Your task to perform on an android device: Open Yahoo.com Image 0: 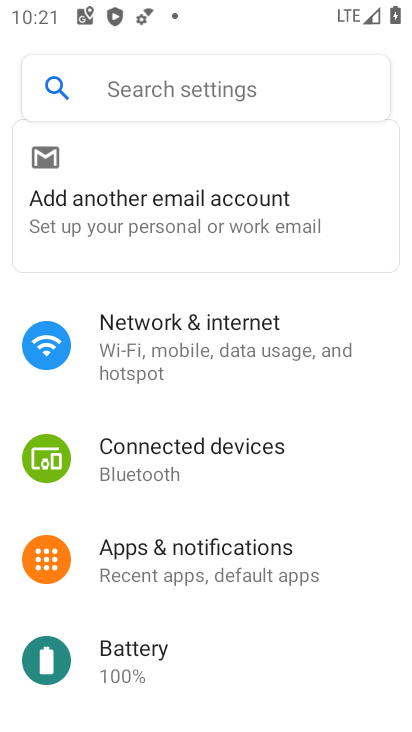
Step 0: press home button
Your task to perform on an android device: Open Yahoo.com Image 1: 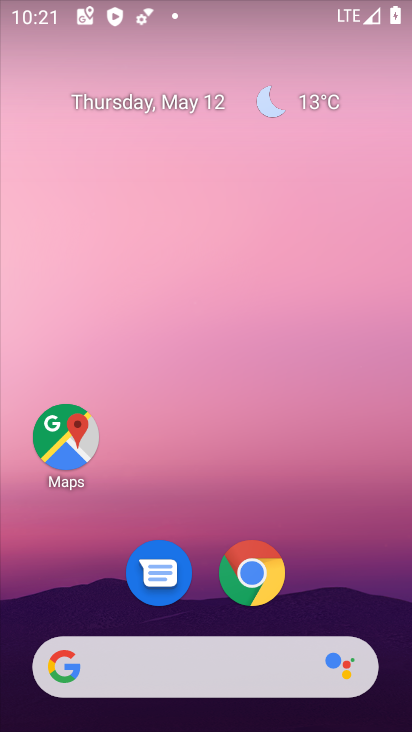
Step 1: click (236, 581)
Your task to perform on an android device: Open Yahoo.com Image 2: 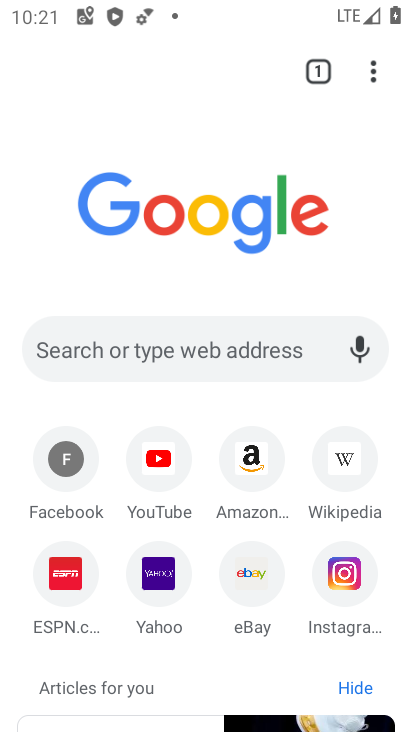
Step 2: click (168, 559)
Your task to perform on an android device: Open Yahoo.com Image 3: 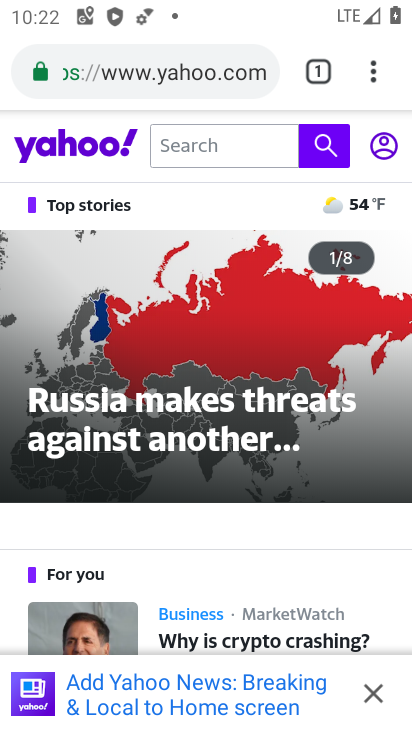
Step 3: task complete